Your task to perform on an android device: Go to accessibility settings Image 0: 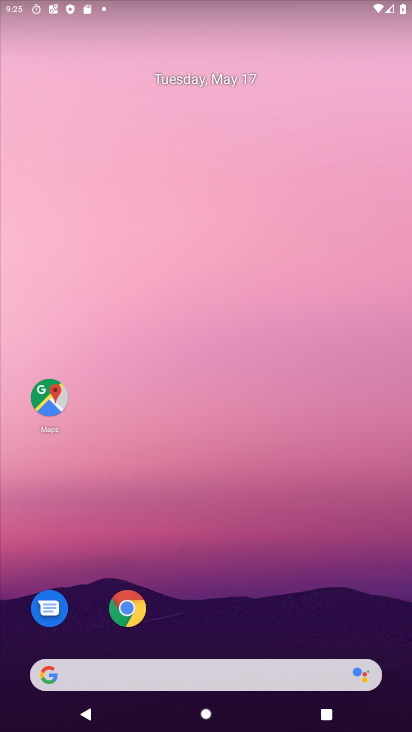
Step 0: drag from (339, 594) to (313, 120)
Your task to perform on an android device: Go to accessibility settings Image 1: 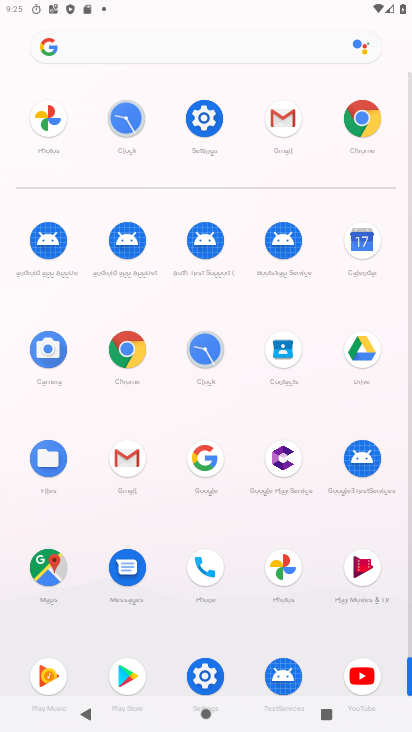
Step 1: click (217, 668)
Your task to perform on an android device: Go to accessibility settings Image 2: 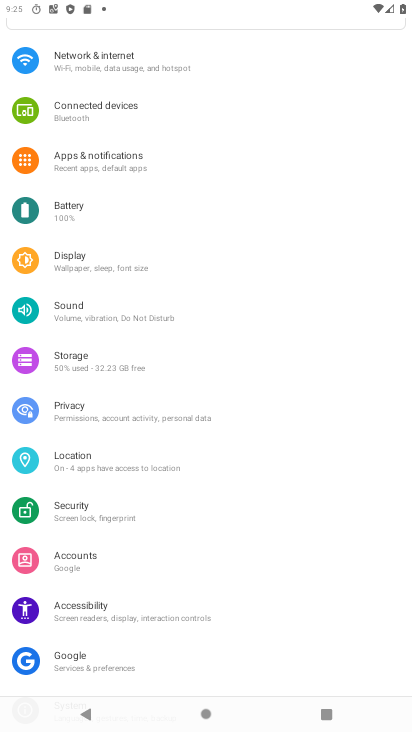
Step 2: click (135, 604)
Your task to perform on an android device: Go to accessibility settings Image 3: 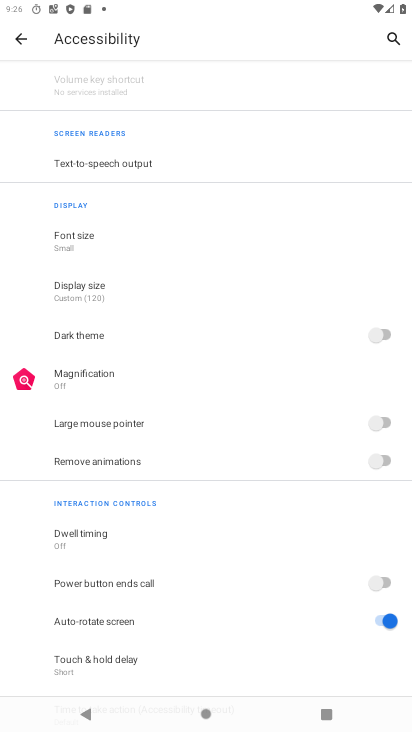
Step 3: task complete